Your task to perform on an android device: Open the stopwatch Image 0: 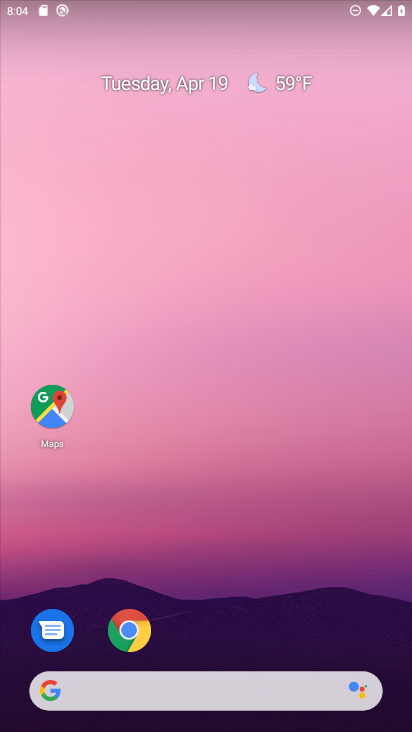
Step 0: drag from (243, 392) to (281, 62)
Your task to perform on an android device: Open the stopwatch Image 1: 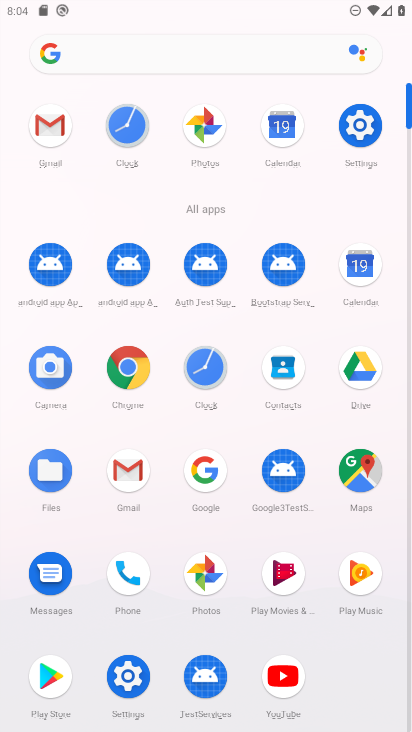
Step 1: click (117, 130)
Your task to perform on an android device: Open the stopwatch Image 2: 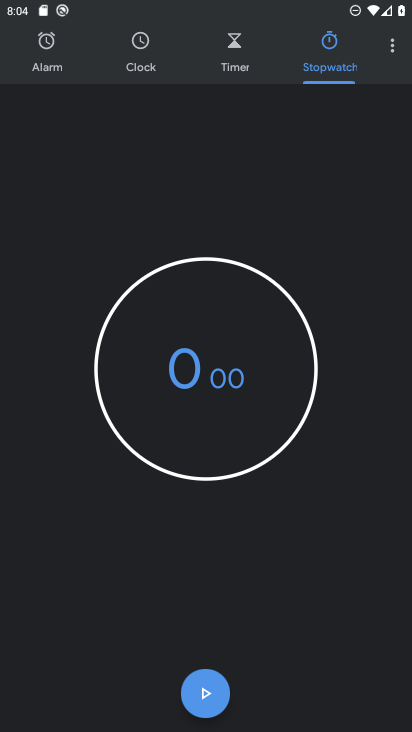
Step 2: task complete